Your task to perform on an android device: toggle show notifications on the lock screen Image 0: 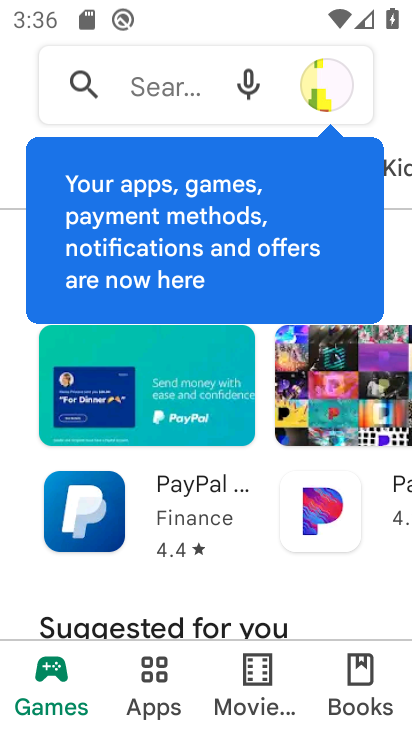
Step 0: press home button
Your task to perform on an android device: toggle show notifications on the lock screen Image 1: 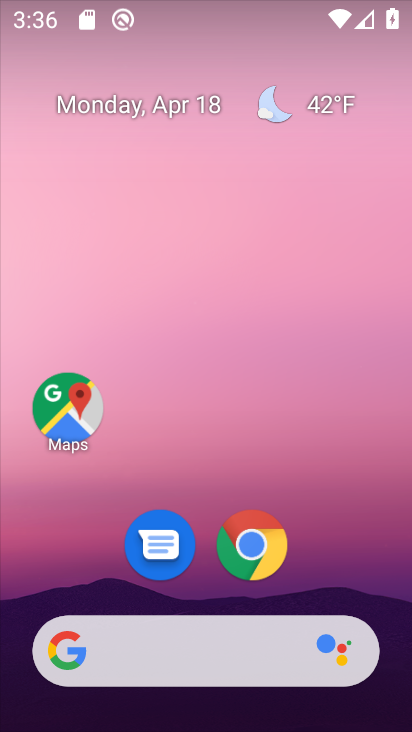
Step 1: drag from (335, 552) to (354, 82)
Your task to perform on an android device: toggle show notifications on the lock screen Image 2: 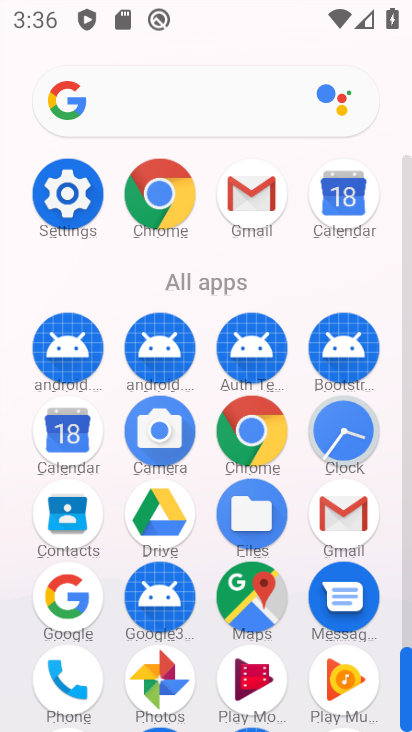
Step 2: click (62, 204)
Your task to perform on an android device: toggle show notifications on the lock screen Image 3: 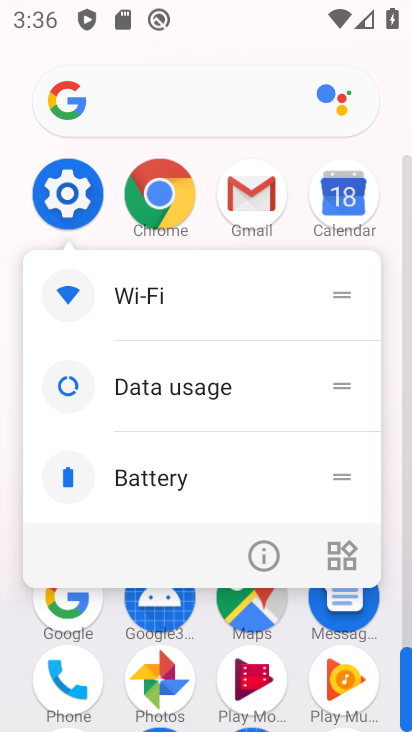
Step 3: click (64, 206)
Your task to perform on an android device: toggle show notifications on the lock screen Image 4: 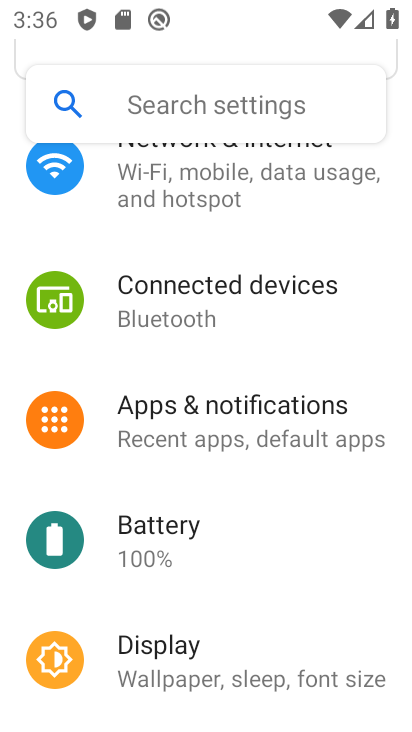
Step 4: drag from (359, 567) to (379, 332)
Your task to perform on an android device: toggle show notifications on the lock screen Image 5: 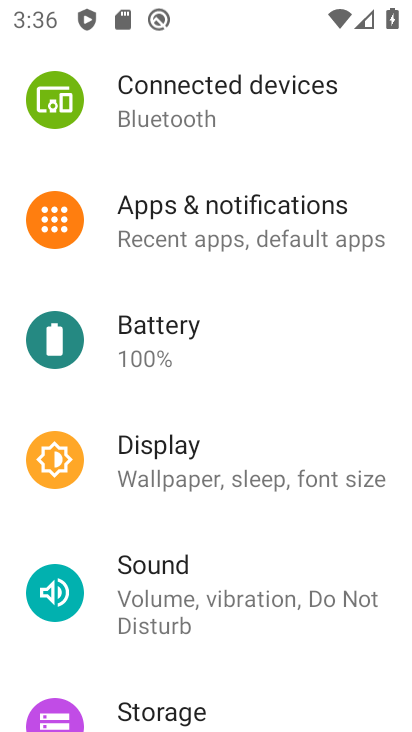
Step 5: drag from (371, 651) to (374, 355)
Your task to perform on an android device: toggle show notifications on the lock screen Image 6: 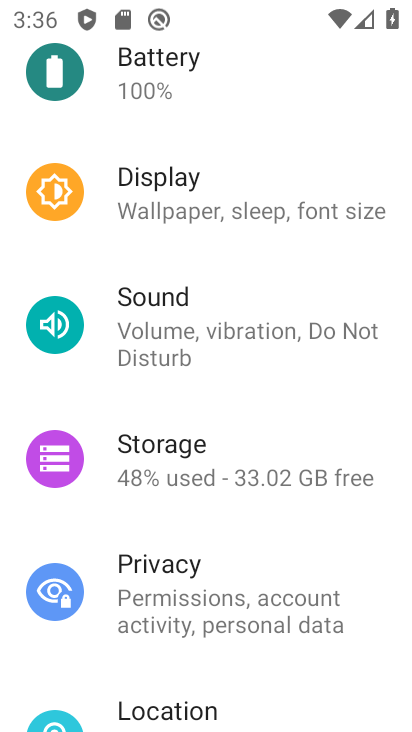
Step 6: drag from (364, 625) to (368, 309)
Your task to perform on an android device: toggle show notifications on the lock screen Image 7: 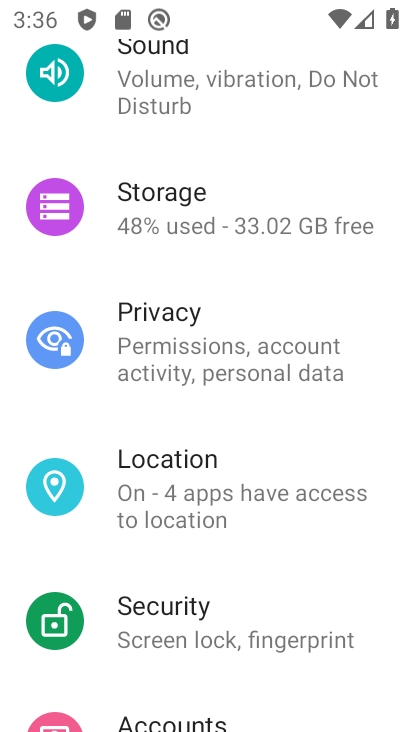
Step 7: drag from (375, 668) to (379, 307)
Your task to perform on an android device: toggle show notifications on the lock screen Image 8: 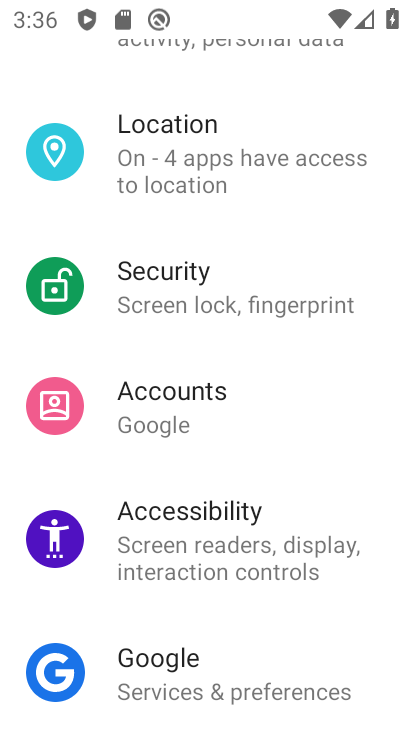
Step 8: drag from (379, 636) to (371, 254)
Your task to perform on an android device: toggle show notifications on the lock screen Image 9: 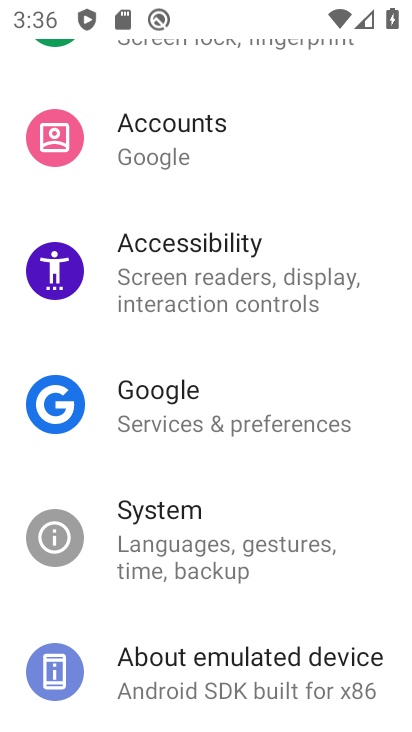
Step 9: drag from (390, 187) to (383, 451)
Your task to perform on an android device: toggle show notifications on the lock screen Image 10: 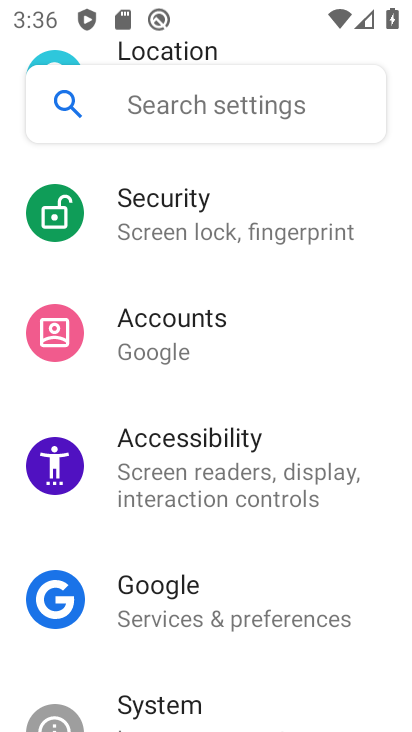
Step 10: drag from (389, 189) to (381, 435)
Your task to perform on an android device: toggle show notifications on the lock screen Image 11: 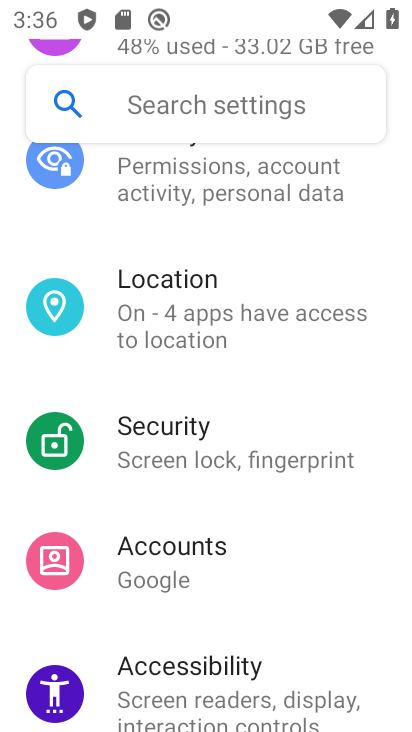
Step 11: drag from (379, 218) to (386, 427)
Your task to perform on an android device: toggle show notifications on the lock screen Image 12: 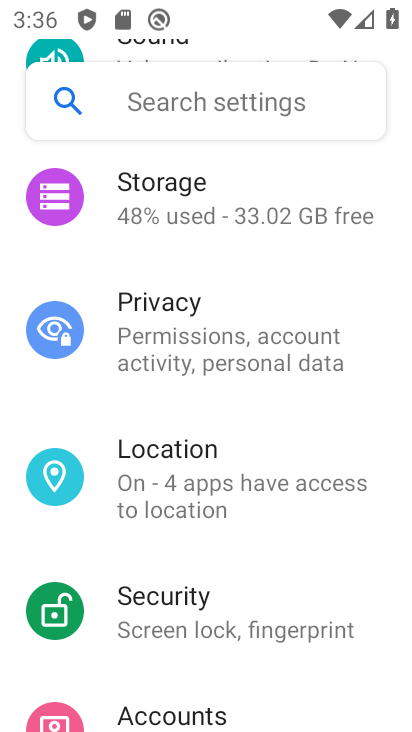
Step 12: drag from (394, 186) to (394, 441)
Your task to perform on an android device: toggle show notifications on the lock screen Image 13: 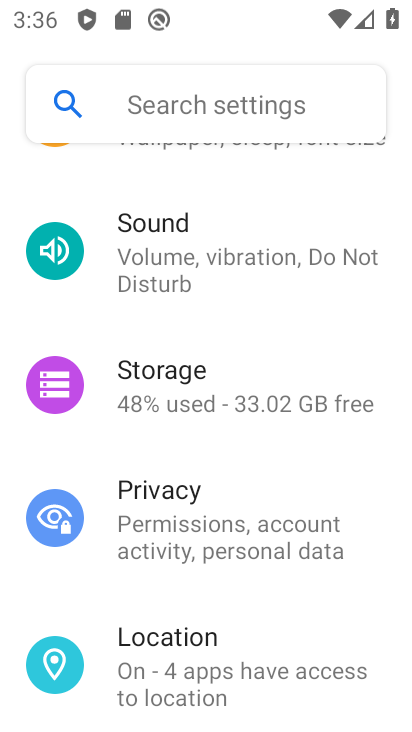
Step 13: drag from (393, 156) to (393, 439)
Your task to perform on an android device: toggle show notifications on the lock screen Image 14: 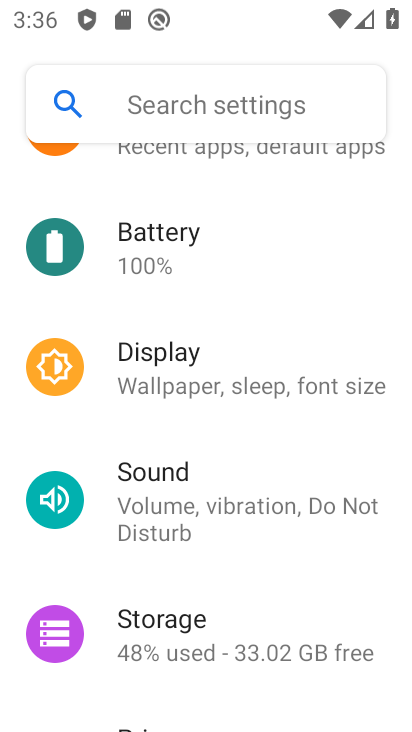
Step 14: drag from (396, 220) to (393, 458)
Your task to perform on an android device: toggle show notifications on the lock screen Image 15: 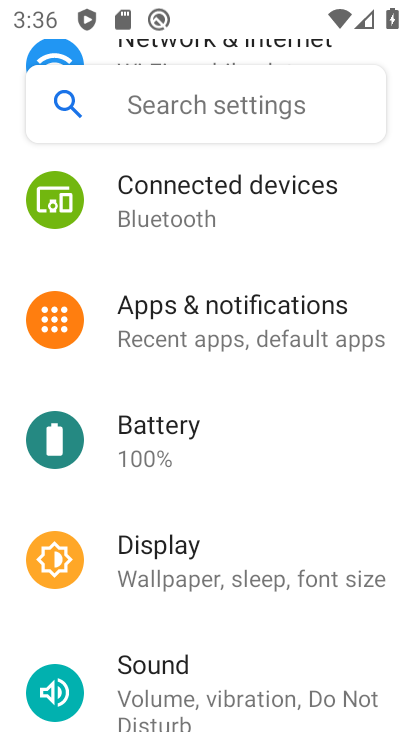
Step 15: click (212, 321)
Your task to perform on an android device: toggle show notifications on the lock screen Image 16: 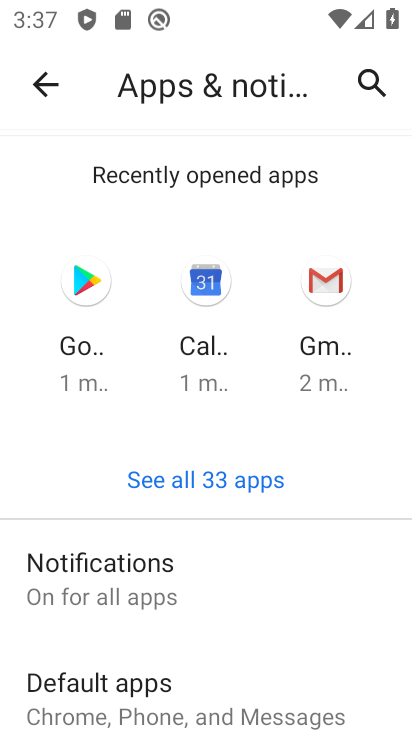
Step 16: click (126, 576)
Your task to perform on an android device: toggle show notifications on the lock screen Image 17: 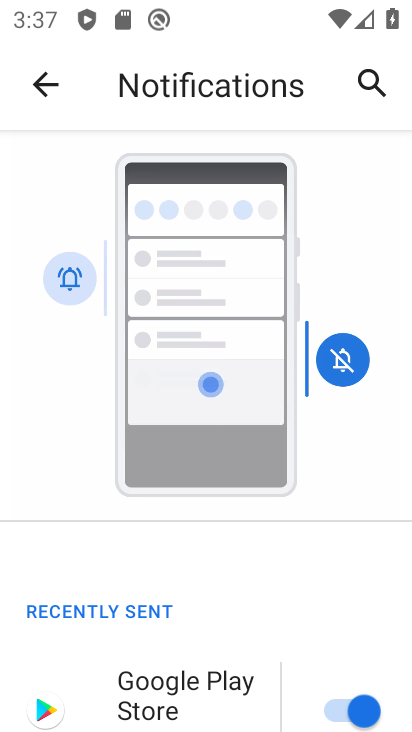
Step 17: drag from (290, 500) to (309, 187)
Your task to perform on an android device: toggle show notifications on the lock screen Image 18: 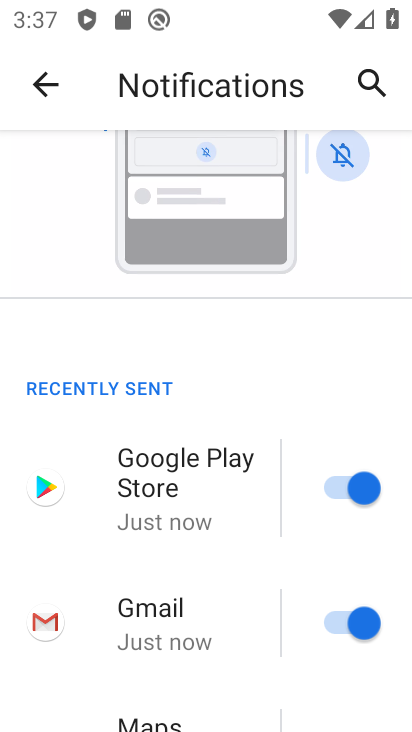
Step 18: drag from (245, 566) to (245, 322)
Your task to perform on an android device: toggle show notifications on the lock screen Image 19: 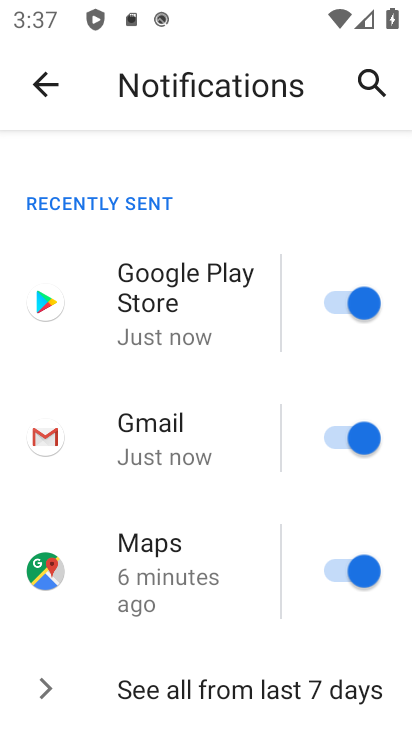
Step 19: drag from (243, 584) to (247, 220)
Your task to perform on an android device: toggle show notifications on the lock screen Image 20: 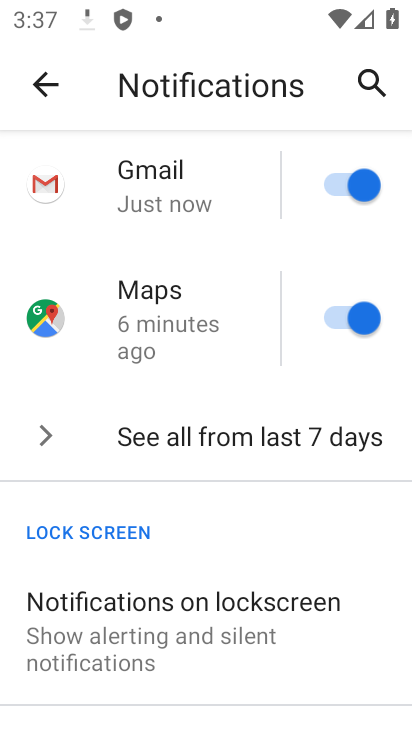
Step 20: click (197, 612)
Your task to perform on an android device: toggle show notifications on the lock screen Image 21: 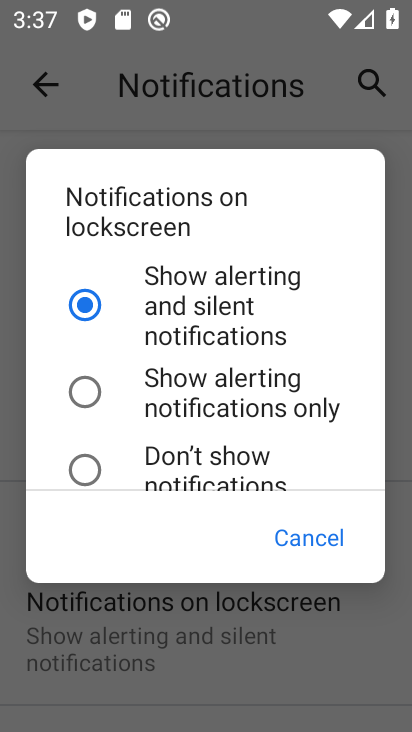
Step 21: click (188, 384)
Your task to perform on an android device: toggle show notifications on the lock screen Image 22: 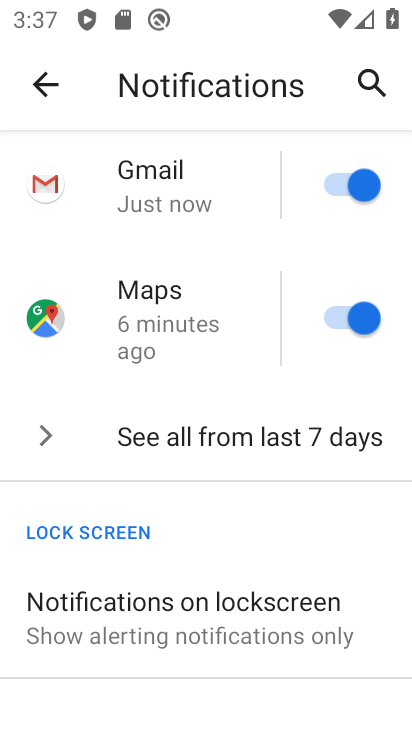
Step 22: task complete